Your task to perform on an android device: open sync settings in chrome Image 0: 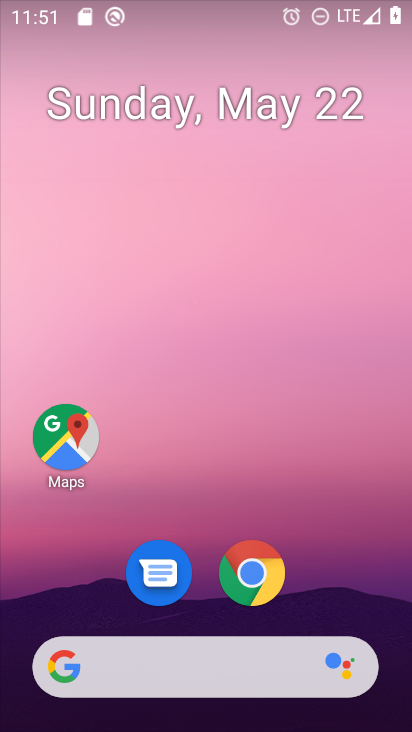
Step 0: click (252, 571)
Your task to perform on an android device: open sync settings in chrome Image 1: 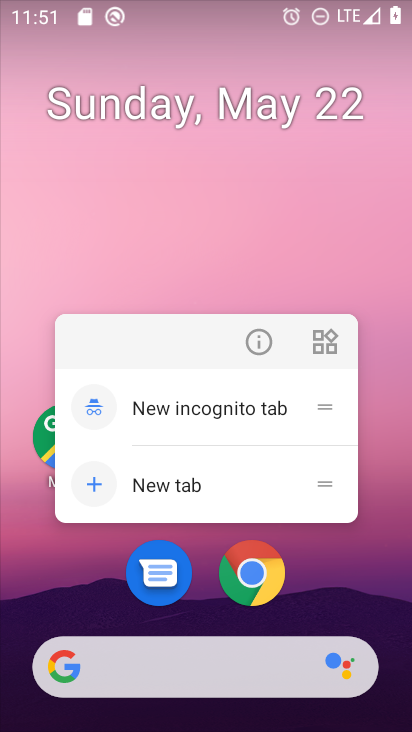
Step 1: click (244, 569)
Your task to perform on an android device: open sync settings in chrome Image 2: 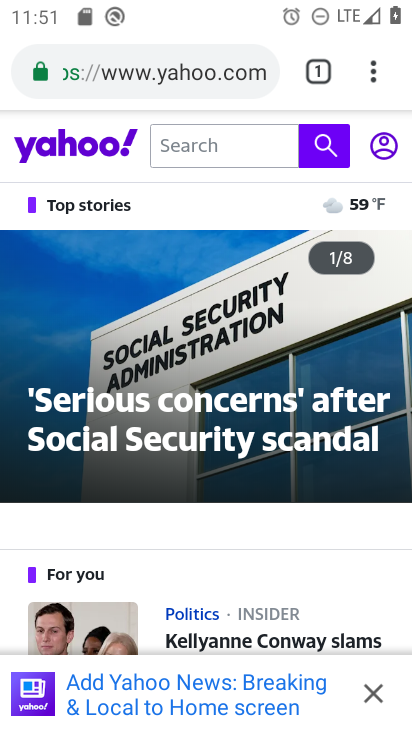
Step 2: click (383, 69)
Your task to perform on an android device: open sync settings in chrome Image 3: 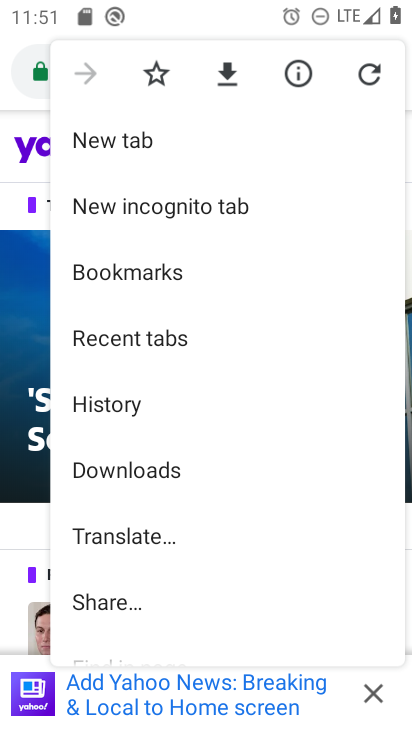
Step 3: drag from (157, 593) to (227, 222)
Your task to perform on an android device: open sync settings in chrome Image 4: 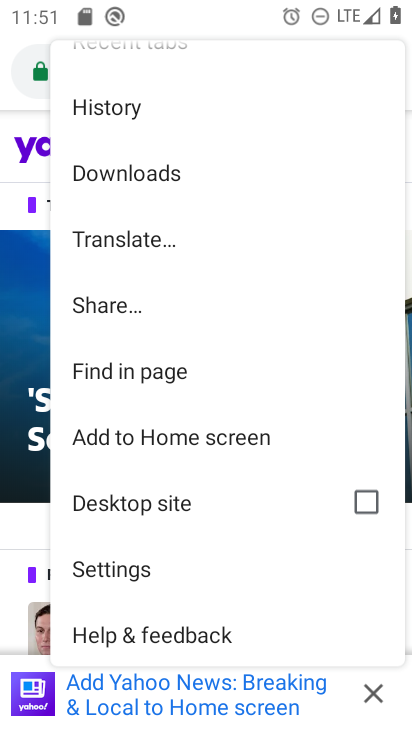
Step 4: click (117, 576)
Your task to perform on an android device: open sync settings in chrome Image 5: 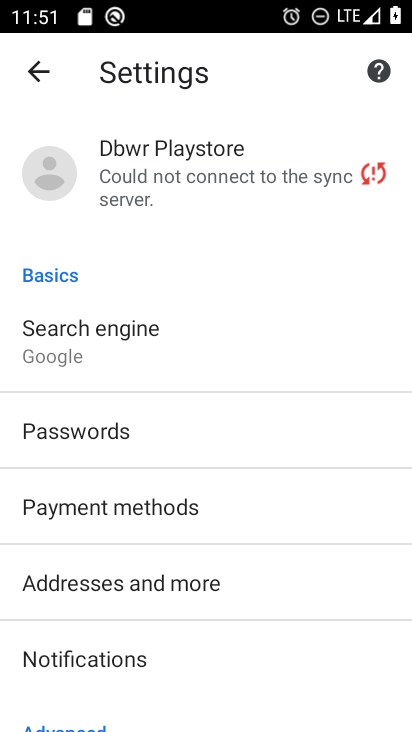
Step 5: click (179, 204)
Your task to perform on an android device: open sync settings in chrome Image 6: 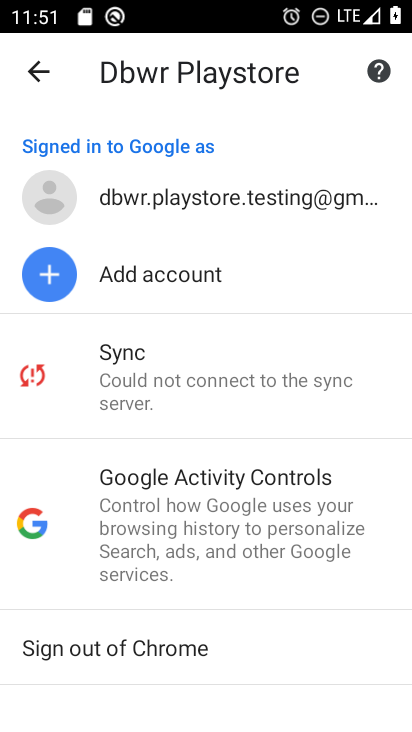
Step 6: click (167, 378)
Your task to perform on an android device: open sync settings in chrome Image 7: 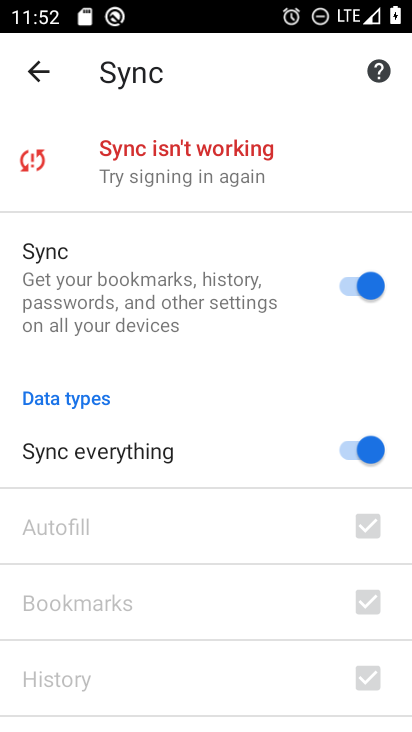
Step 7: task complete